Your task to perform on an android device: open app "TextNow: Call + Text Unlimited" (install if not already installed) Image 0: 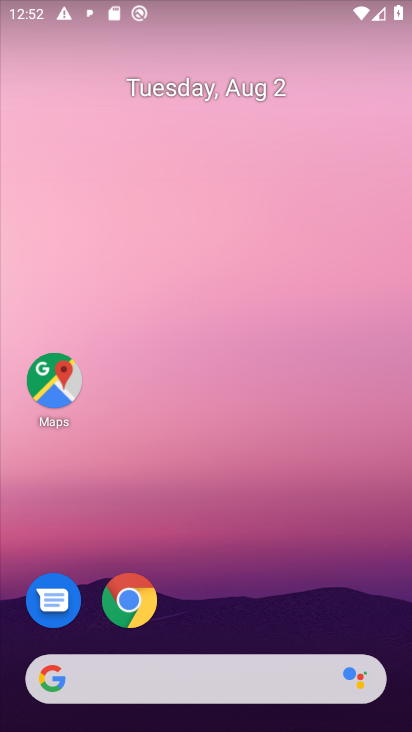
Step 0: drag from (194, 664) to (151, 250)
Your task to perform on an android device: open app "TextNow: Call + Text Unlimited" (install if not already installed) Image 1: 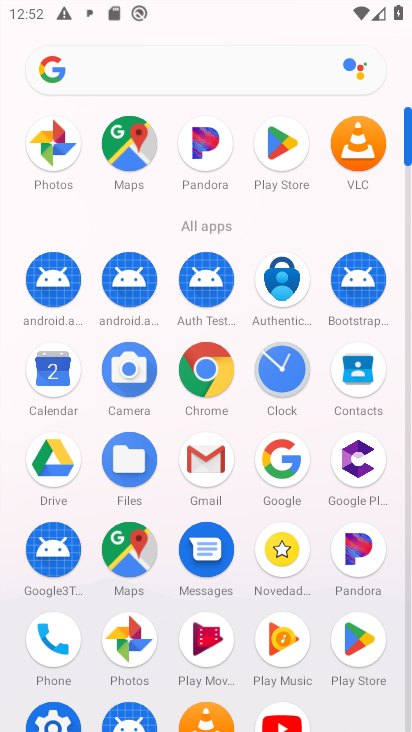
Step 1: click (352, 640)
Your task to perform on an android device: open app "TextNow: Call + Text Unlimited" (install if not already installed) Image 2: 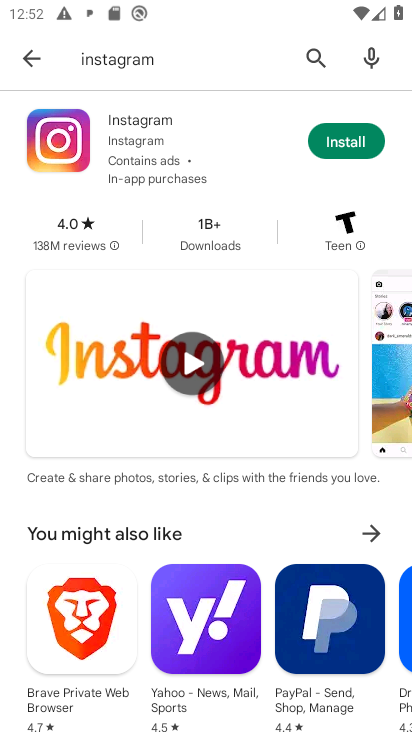
Step 2: click (309, 53)
Your task to perform on an android device: open app "TextNow: Call + Text Unlimited" (install if not already installed) Image 3: 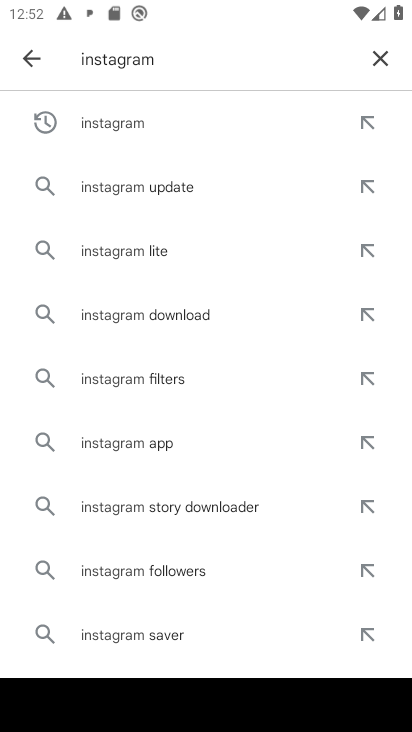
Step 3: click (370, 66)
Your task to perform on an android device: open app "TextNow: Call + Text Unlimited" (install if not already installed) Image 4: 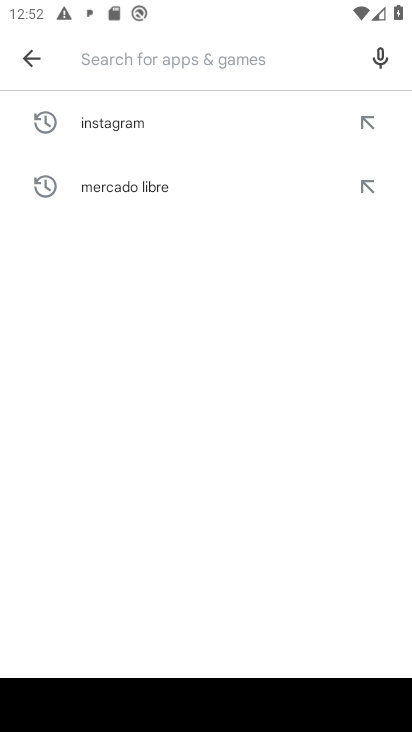
Step 4: type "TextNow: Call + Text Unlimited"
Your task to perform on an android device: open app "TextNow: Call + Text Unlimited" (install if not already installed) Image 5: 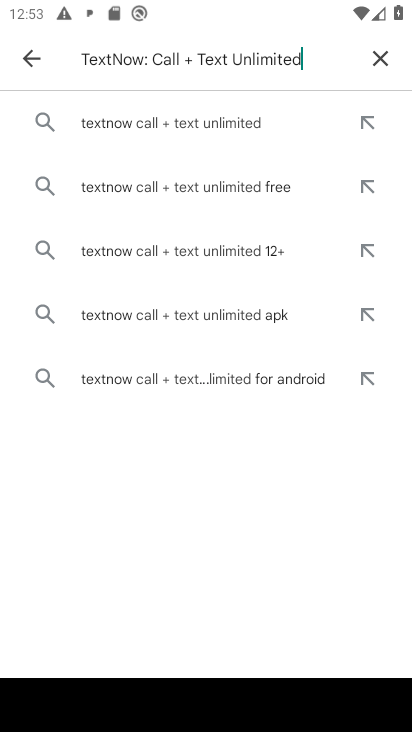
Step 5: click (116, 120)
Your task to perform on an android device: open app "TextNow: Call + Text Unlimited" (install if not already installed) Image 6: 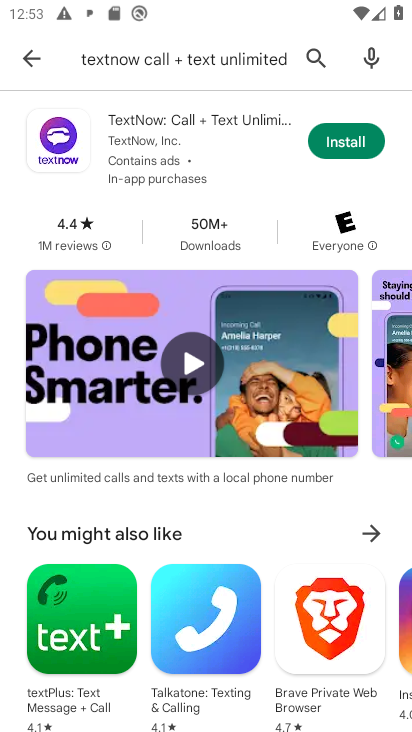
Step 6: click (345, 139)
Your task to perform on an android device: open app "TextNow: Call + Text Unlimited" (install if not already installed) Image 7: 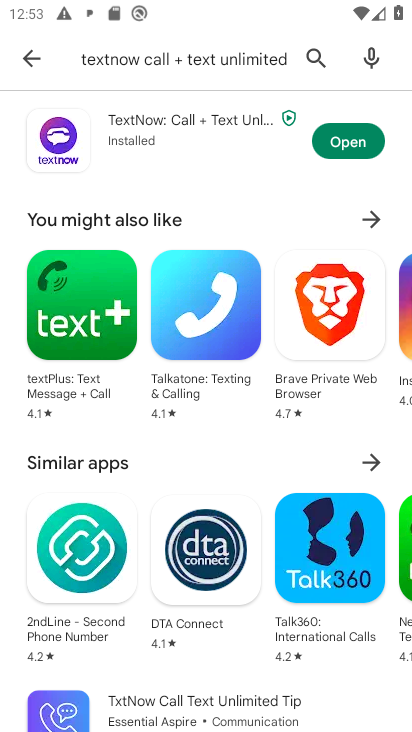
Step 7: click (336, 144)
Your task to perform on an android device: open app "TextNow: Call + Text Unlimited" (install if not already installed) Image 8: 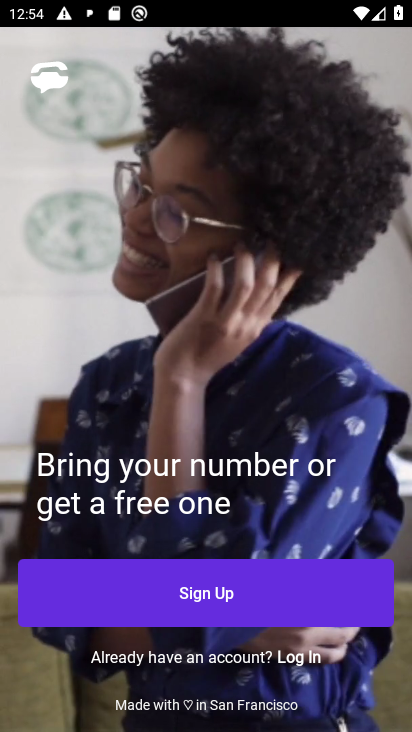
Step 8: task complete